Your task to perform on an android device: Is it going to rain this weekend? Image 0: 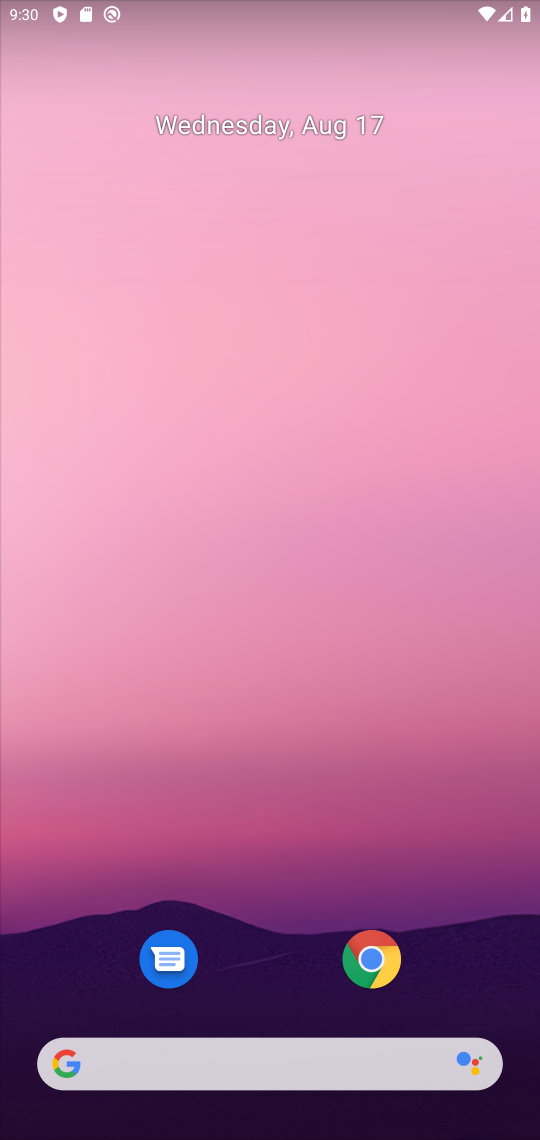
Step 0: task complete